Your task to perform on an android device: Check the weather Image 0: 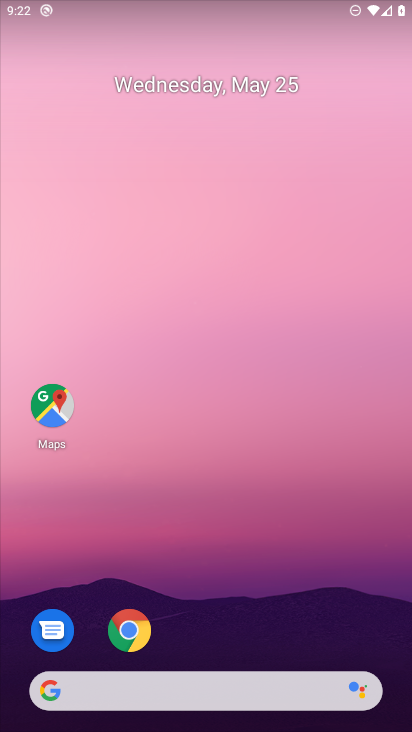
Step 0: drag from (201, 652) to (166, 229)
Your task to perform on an android device: Check the weather Image 1: 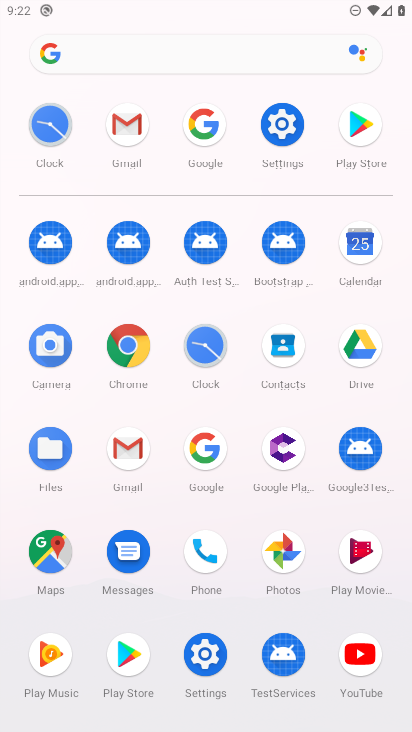
Step 1: click (195, 446)
Your task to perform on an android device: Check the weather Image 2: 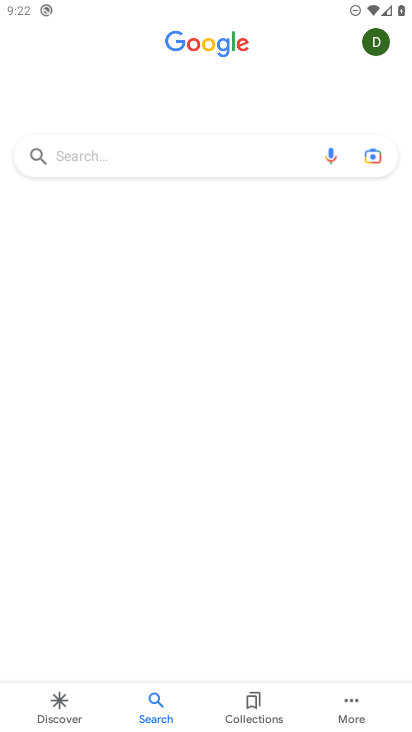
Step 2: click (154, 148)
Your task to perform on an android device: Check the weather Image 3: 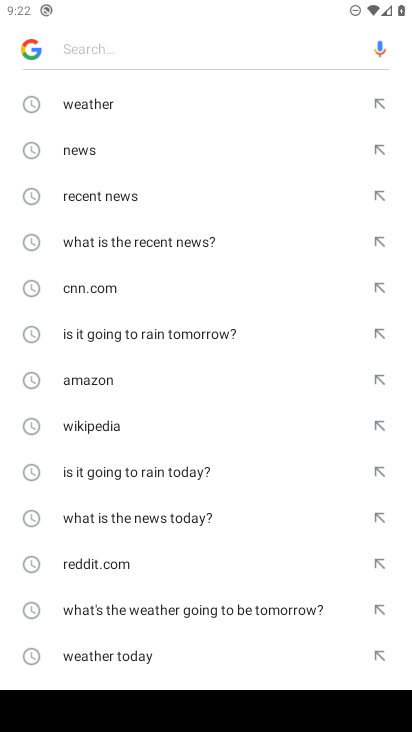
Step 3: click (109, 105)
Your task to perform on an android device: Check the weather Image 4: 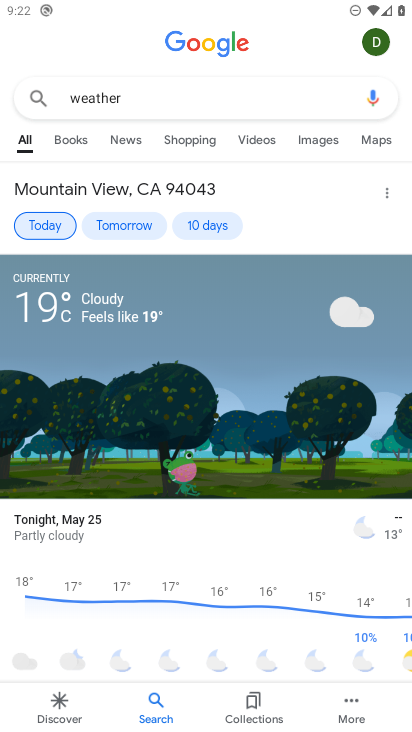
Step 4: task complete